Your task to perform on an android device: open app "The Home Depot" (install if not already installed) Image 0: 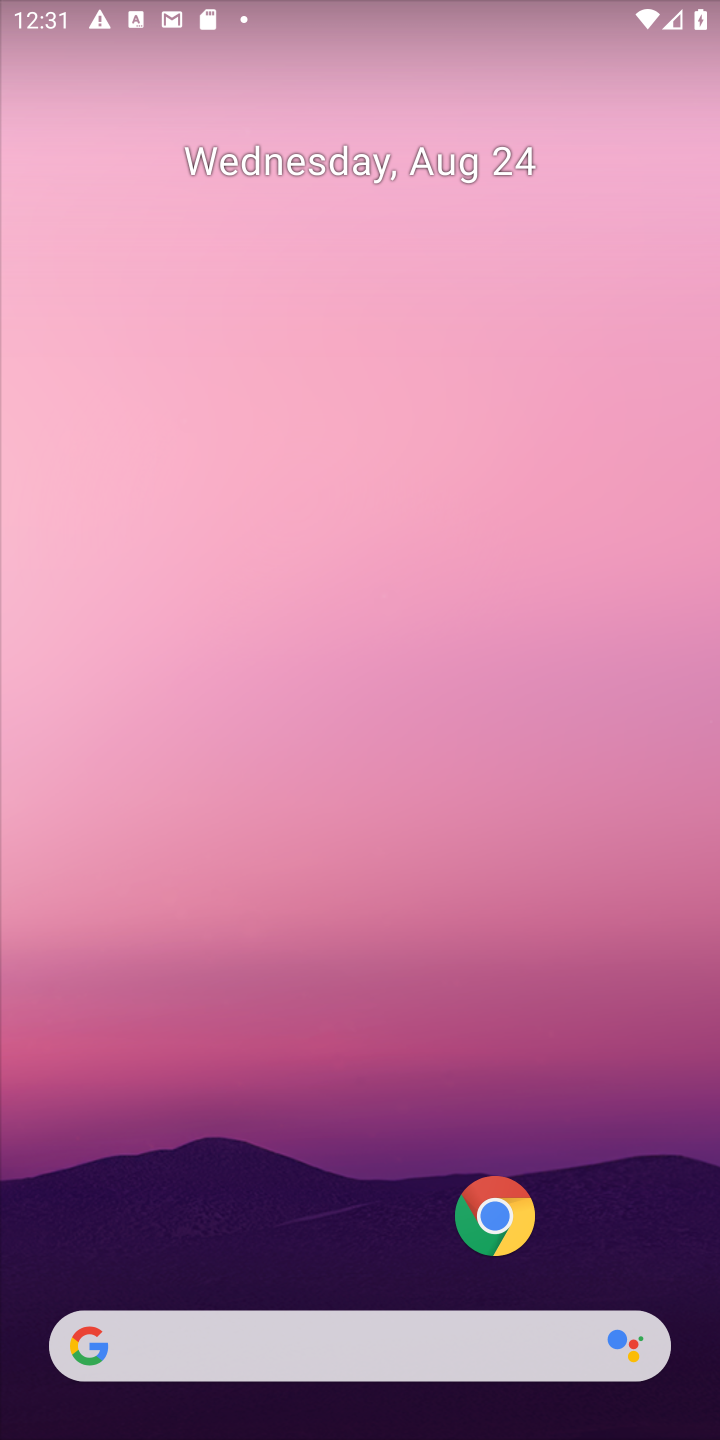
Step 0: drag from (290, 1151) to (447, 30)
Your task to perform on an android device: open app "The Home Depot" (install if not already installed) Image 1: 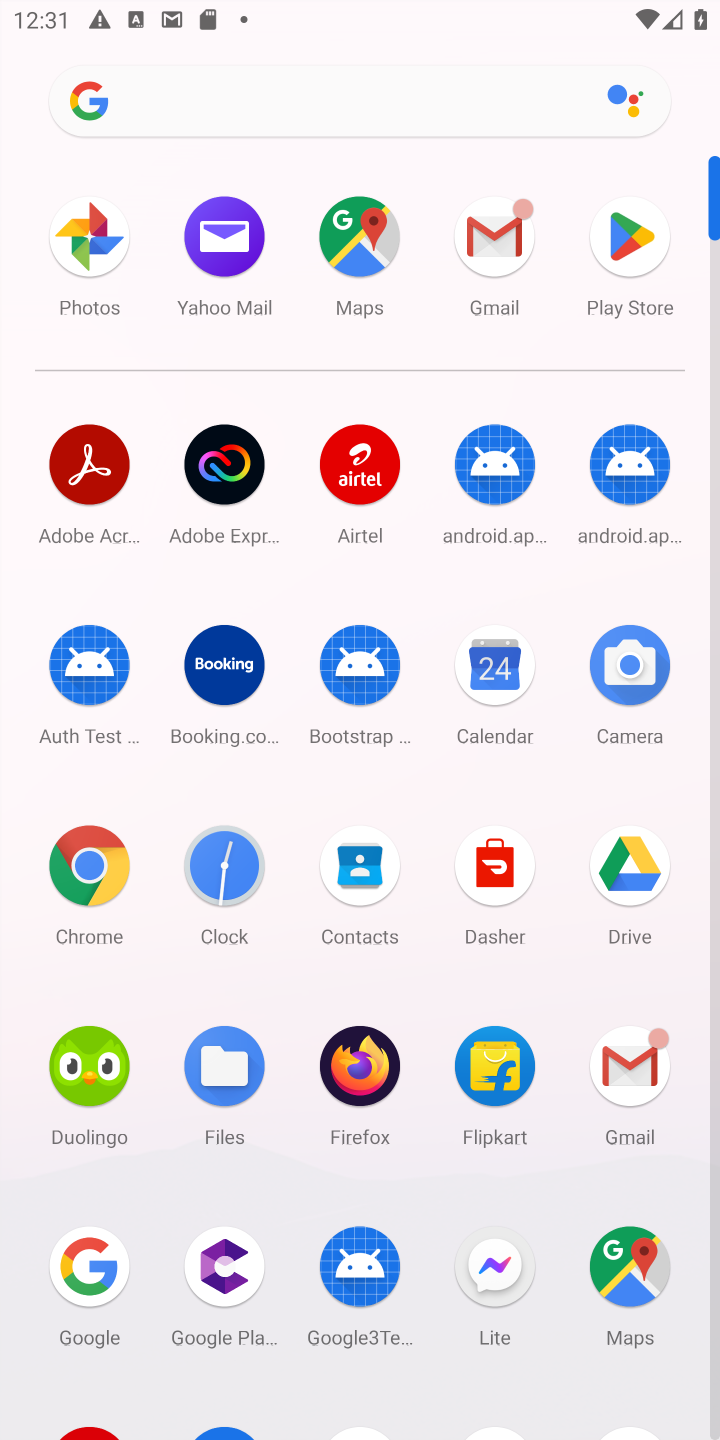
Step 1: click (630, 240)
Your task to perform on an android device: open app "The Home Depot" (install if not already installed) Image 2: 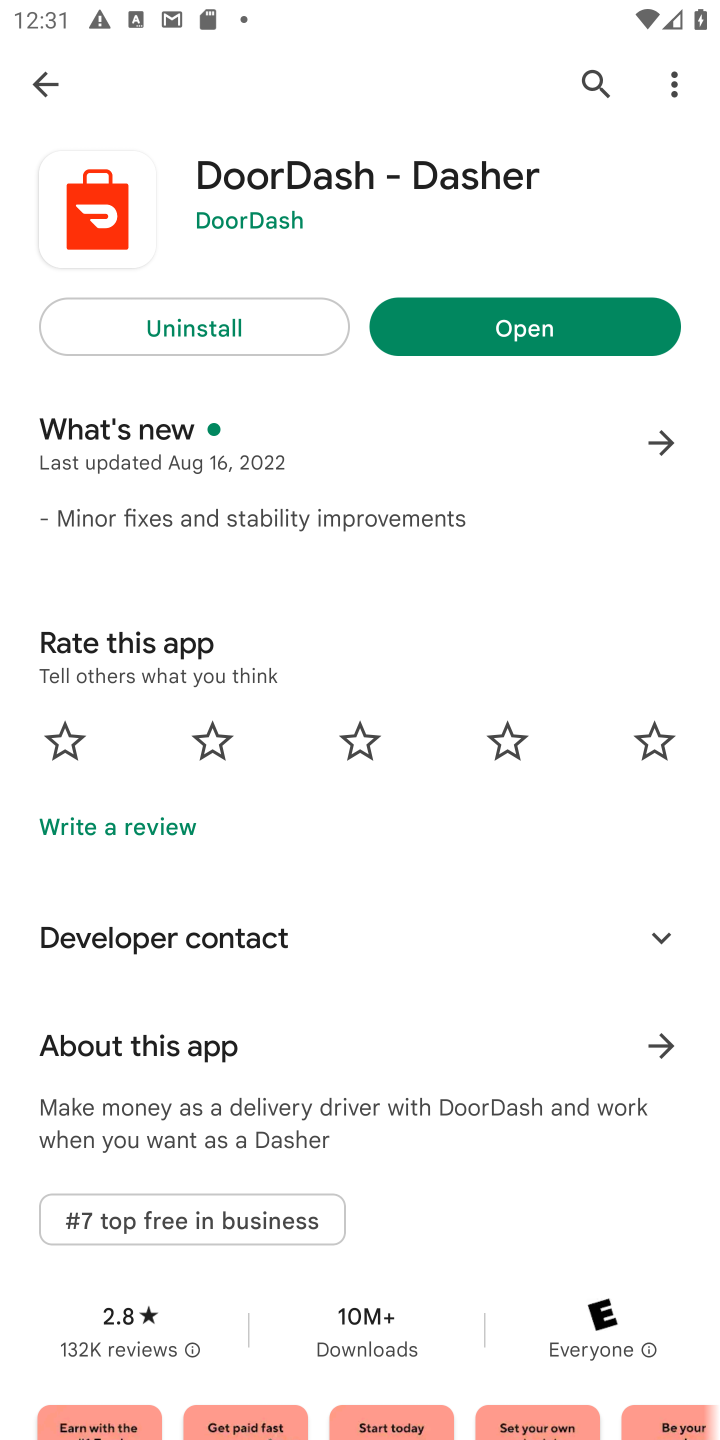
Step 2: press back button
Your task to perform on an android device: open app "The Home Depot" (install if not already installed) Image 3: 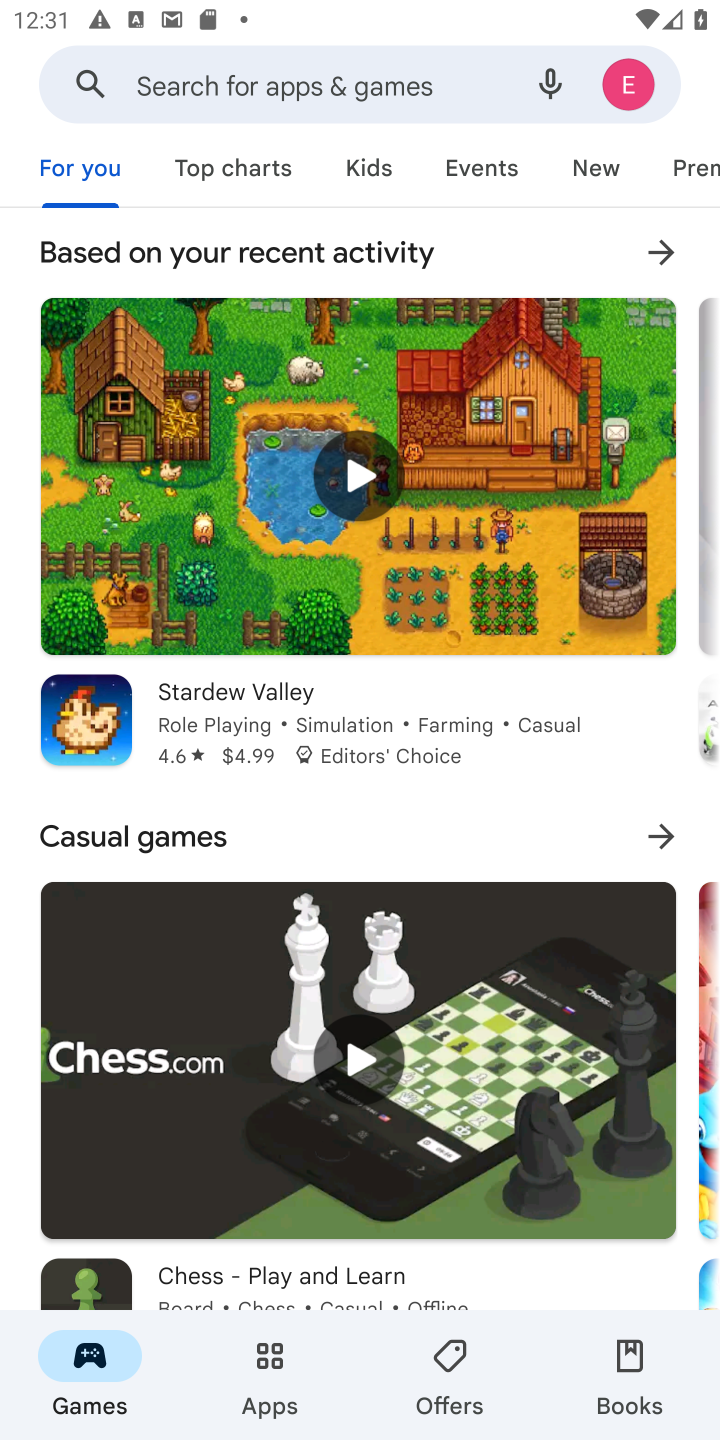
Step 3: click (455, 60)
Your task to perform on an android device: open app "The Home Depot" (install if not already installed) Image 4: 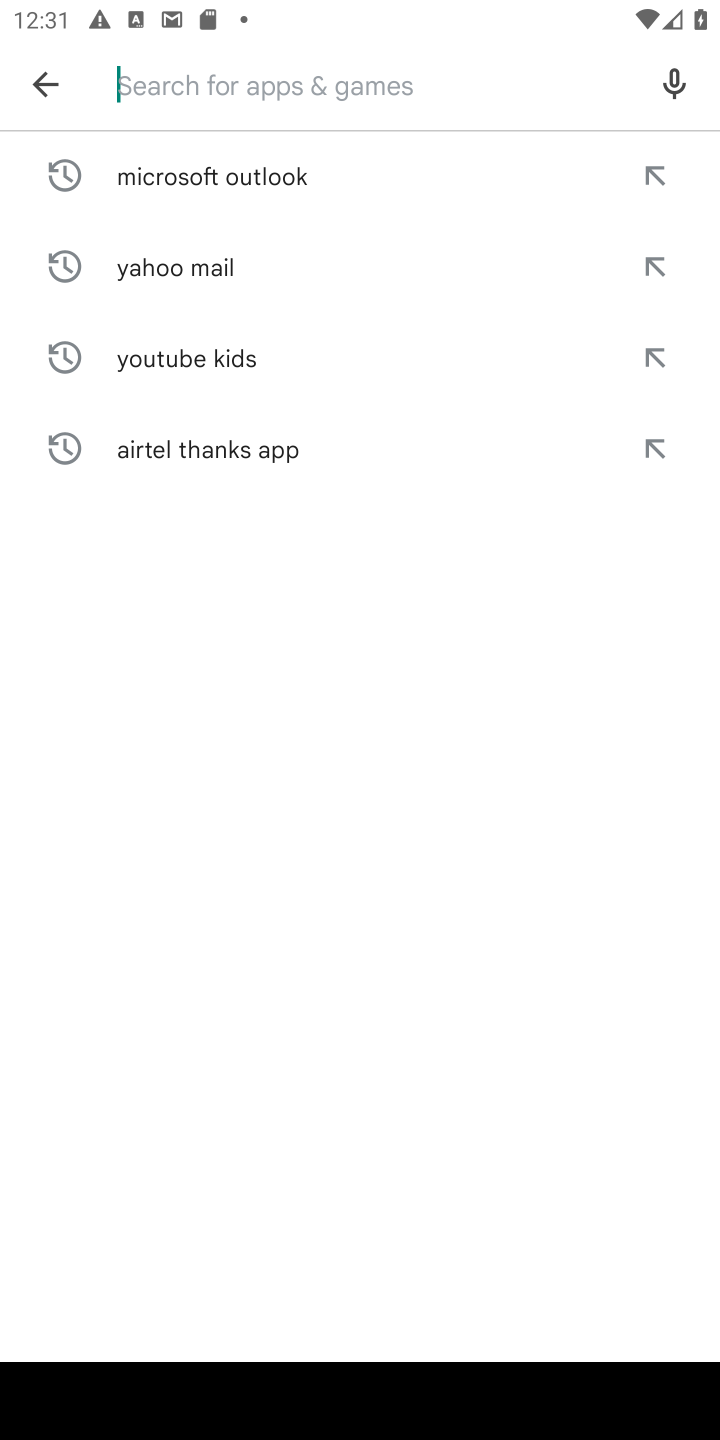
Step 4: type "The Home Depot"
Your task to perform on an android device: open app "The Home Depot" (install if not already installed) Image 5: 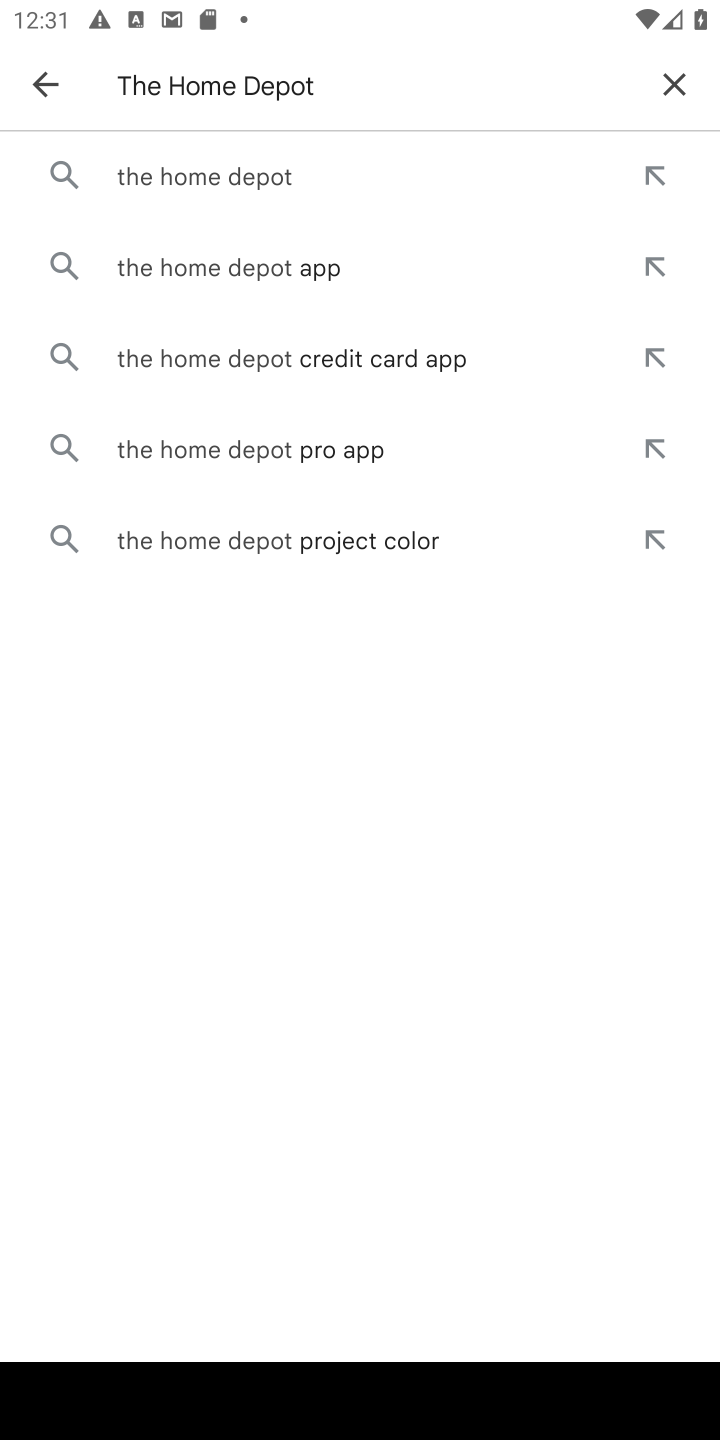
Step 5: click (237, 184)
Your task to perform on an android device: open app "The Home Depot" (install if not already installed) Image 6: 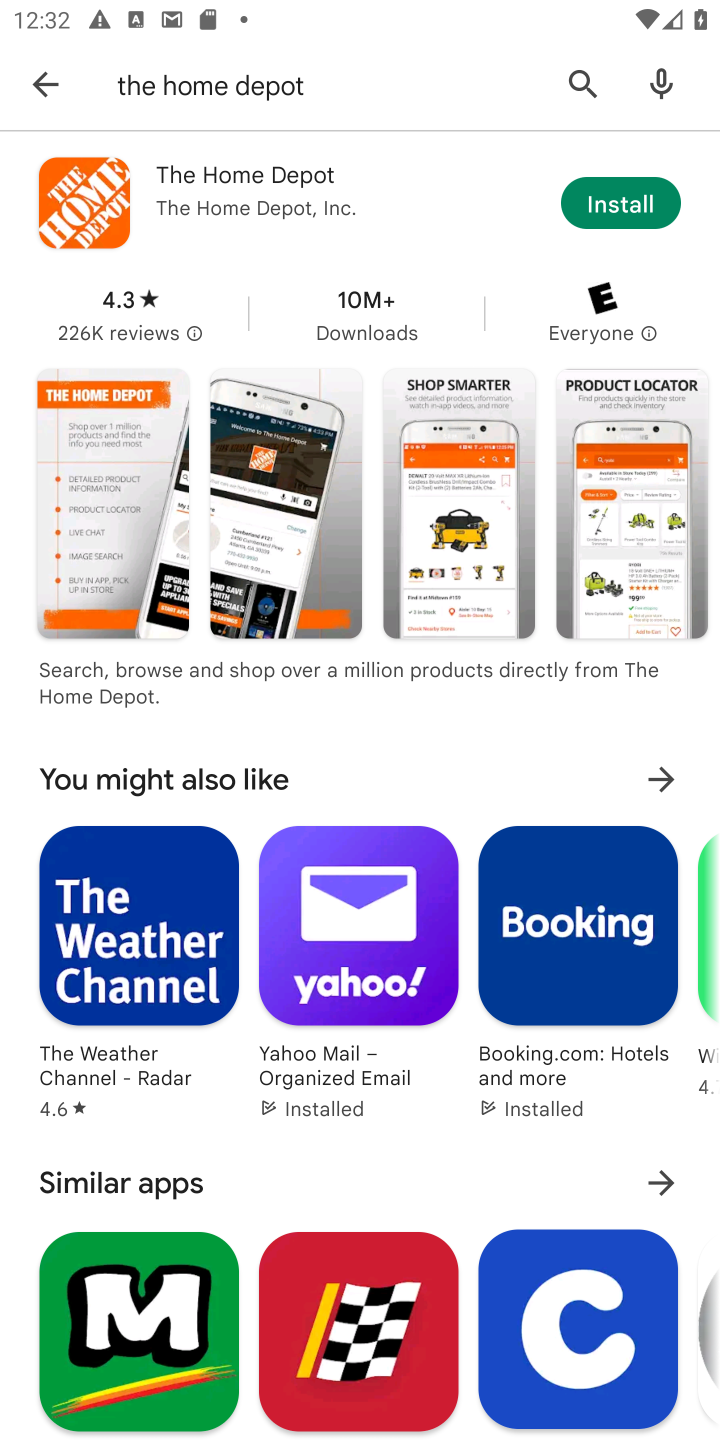
Step 6: click (640, 209)
Your task to perform on an android device: open app "The Home Depot" (install if not already installed) Image 7: 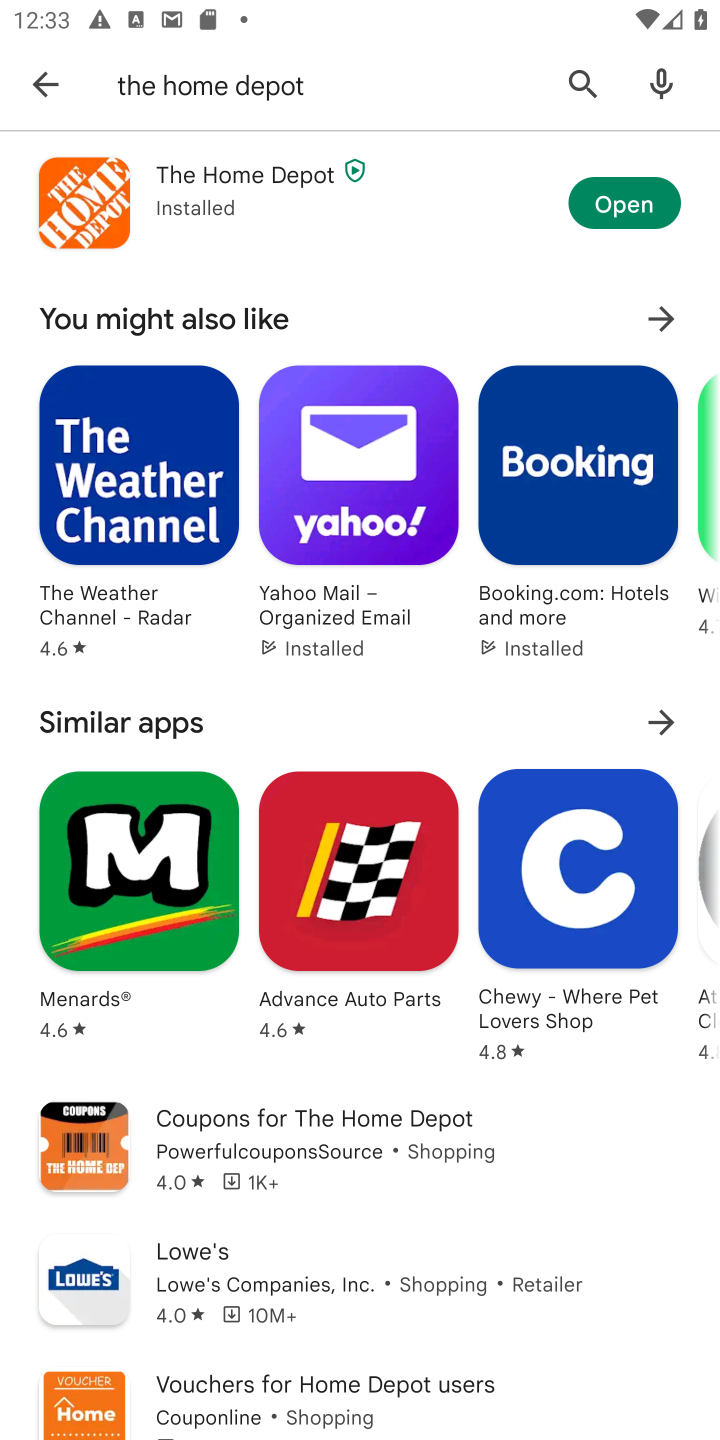
Step 7: click (618, 200)
Your task to perform on an android device: open app "The Home Depot" (install if not already installed) Image 8: 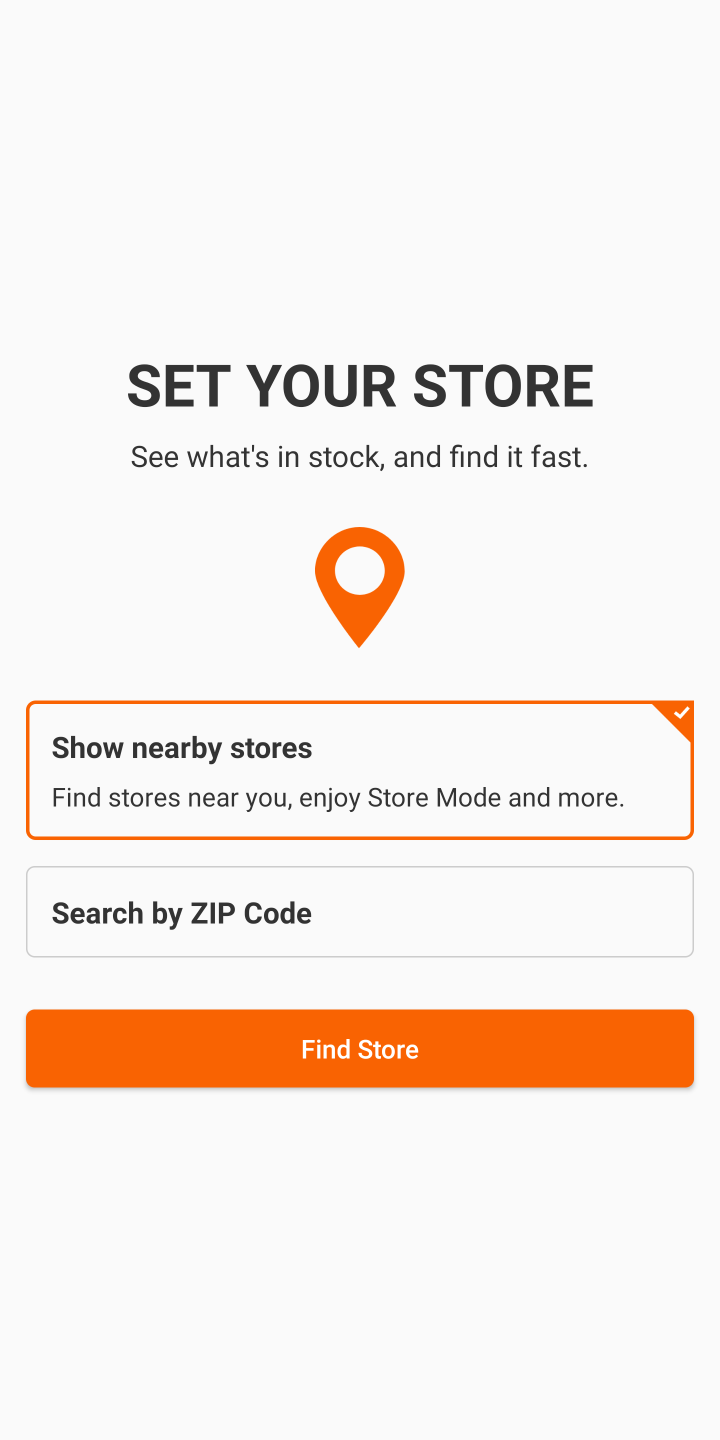
Step 8: task complete